Your task to perform on an android device: turn on showing notifications on the lock screen Image 0: 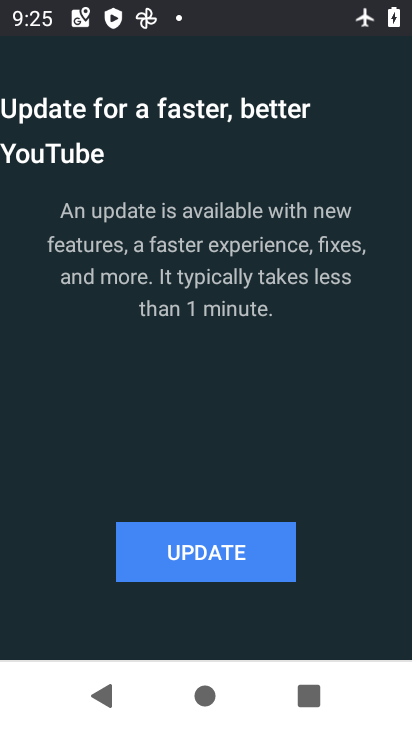
Step 0: press home button
Your task to perform on an android device: turn on showing notifications on the lock screen Image 1: 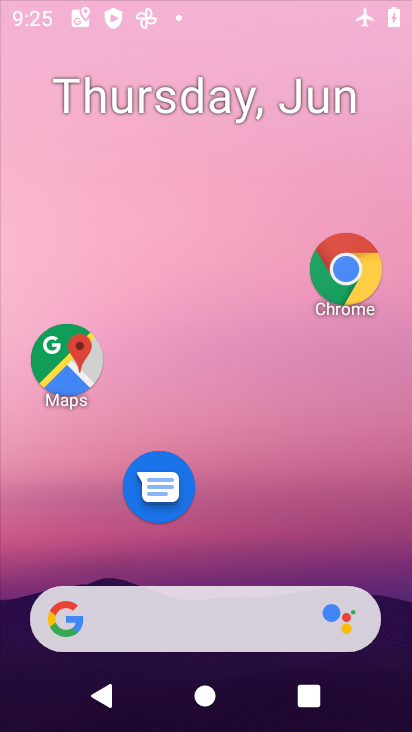
Step 1: drag from (238, 573) to (397, 47)
Your task to perform on an android device: turn on showing notifications on the lock screen Image 2: 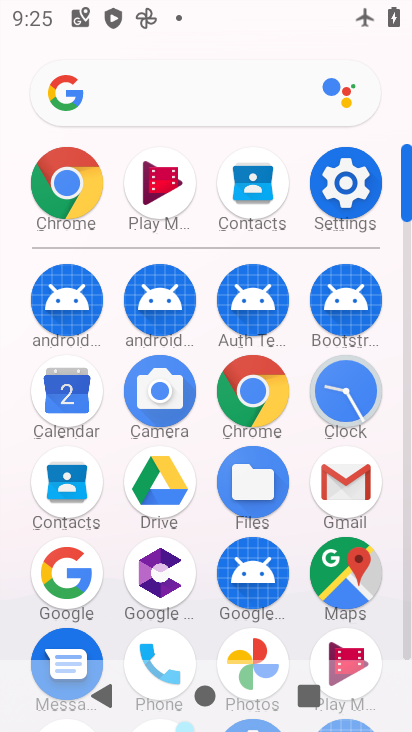
Step 2: click (334, 195)
Your task to perform on an android device: turn on showing notifications on the lock screen Image 3: 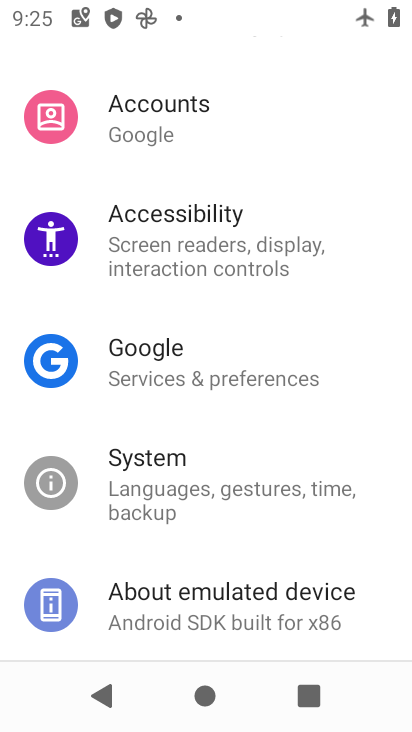
Step 3: drag from (148, 575) to (252, 218)
Your task to perform on an android device: turn on showing notifications on the lock screen Image 4: 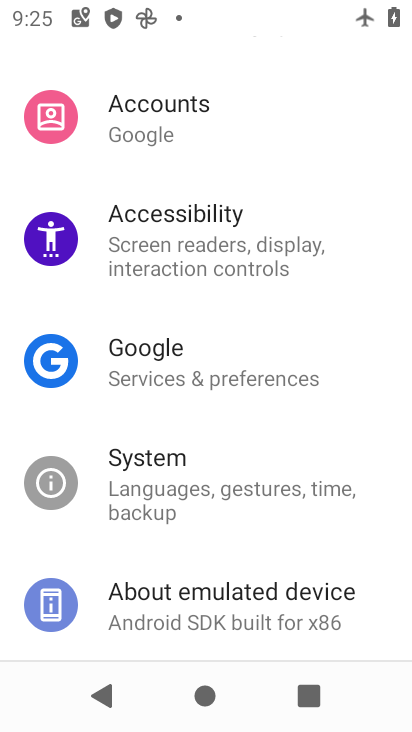
Step 4: drag from (219, 199) to (296, 669)
Your task to perform on an android device: turn on showing notifications on the lock screen Image 5: 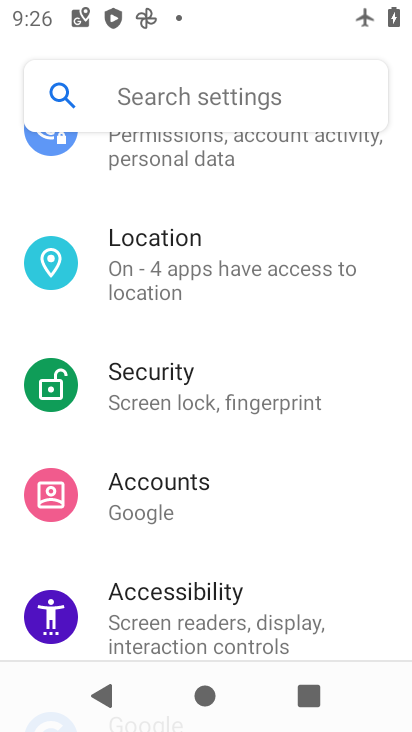
Step 5: drag from (201, 240) to (254, 587)
Your task to perform on an android device: turn on showing notifications on the lock screen Image 6: 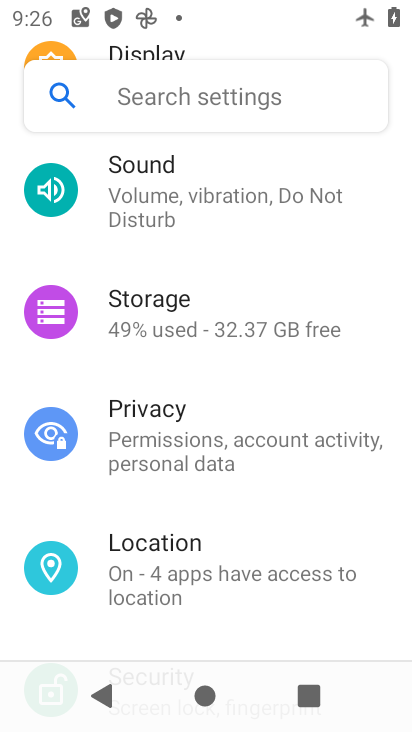
Step 6: drag from (158, 294) to (222, 667)
Your task to perform on an android device: turn on showing notifications on the lock screen Image 7: 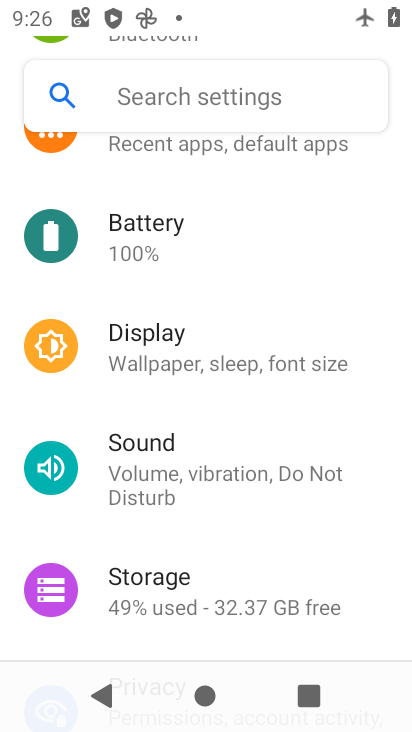
Step 7: drag from (254, 279) to (216, 662)
Your task to perform on an android device: turn on showing notifications on the lock screen Image 8: 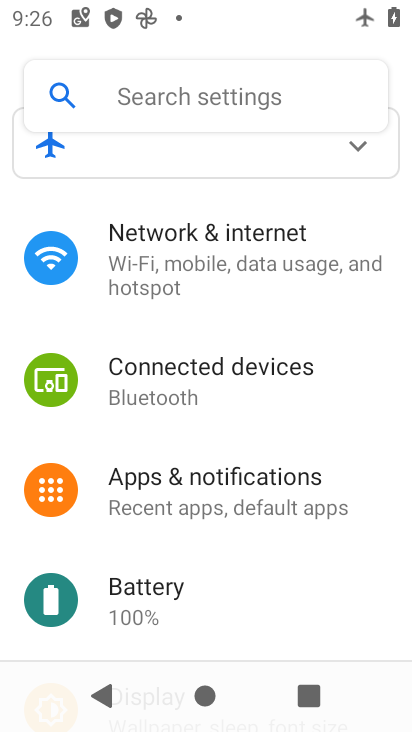
Step 8: click (156, 475)
Your task to perform on an android device: turn on showing notifications on the lock screen Image 9: 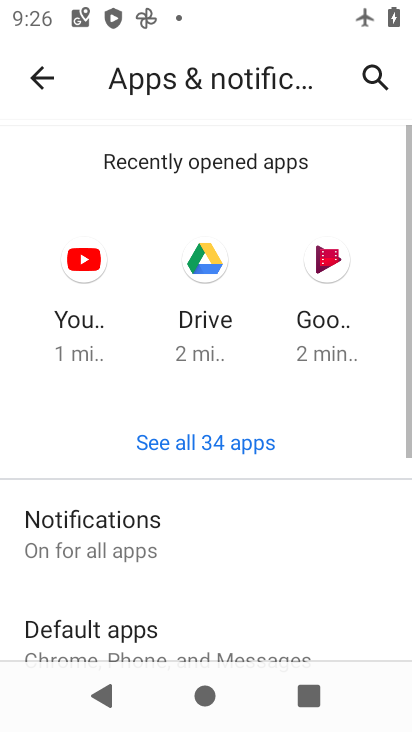
Step 9: drag from (195, 577) to (306, 0)
Your task to perform on an android device: turn on showing notifications on the lock screen Image 10: 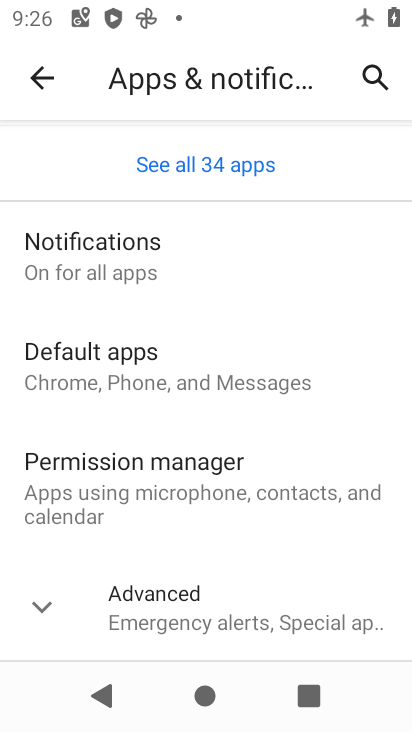
Step 10: click (163, 226)
Your task to perform on an android device: turn on showing notifications on the lock screen Image 11: 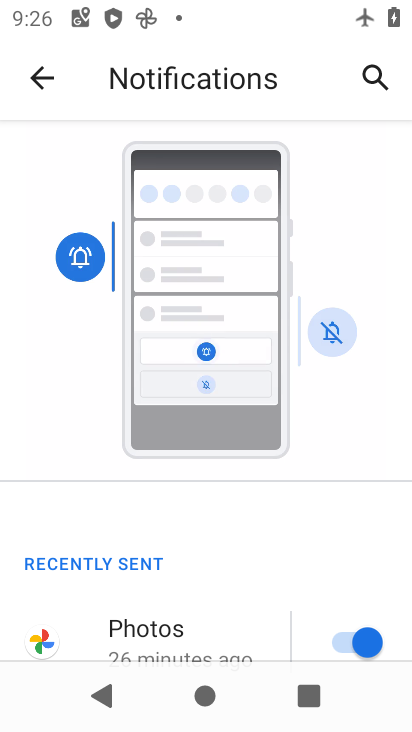
Step 11: drag from (251, 626) to (358, 165)
Your task to perform on an android device: turn on showing notifications on the lock screen Image 12: 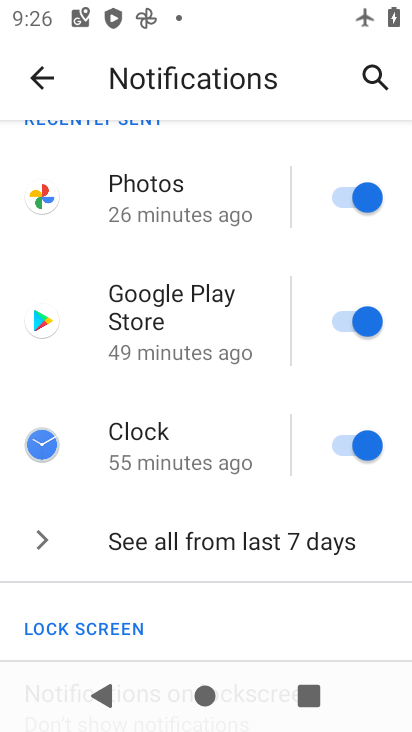
Step 12: drag from (203, 545) to (281, 144)
Your task to perform on an android device: turn on showing notifications on the lock screen Image 13: 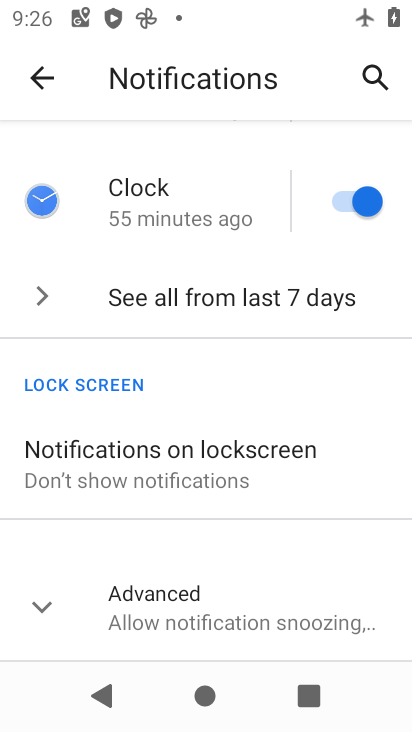
Step 13: click (159, 473)
Your task to perform on an android device: turn on showing notifications on the lock screen Image 14: 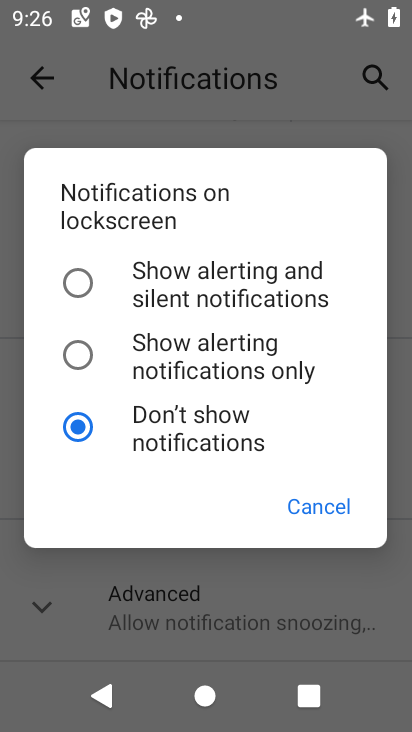
Step 14: click (100, 362)
Your task to perform on an android device: turn on showing notifications on the lock screen Image 15: 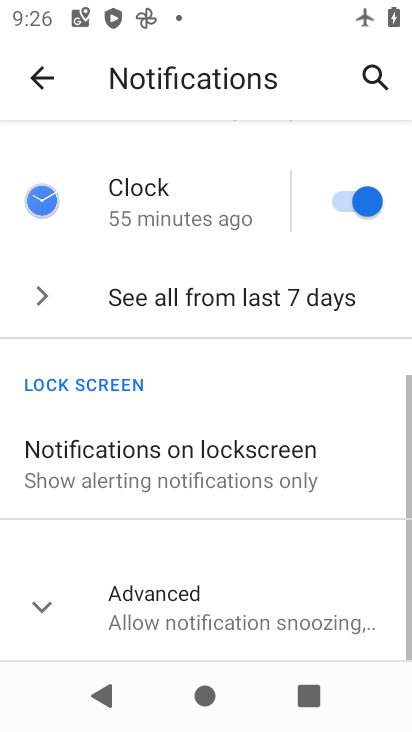
Step 15: task complete